Your task to perform on an android device: change the clock display to digital Image 0: 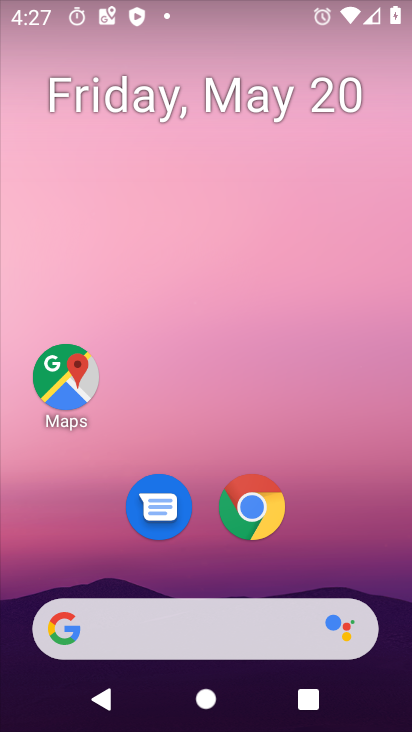
Step 0: drag from (340, 547) to (245, 89)
Your task to perform on an android device: change the clock display to digital Image 1: 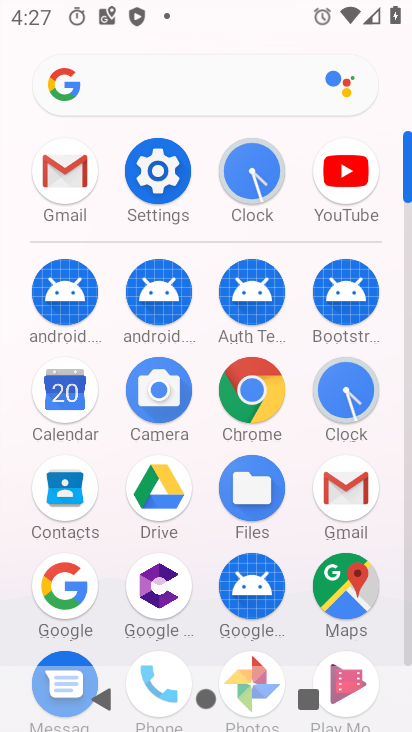
Step 1: click (346, 388)
Your task to perform on an android device: change the clock display to digital Image 2: 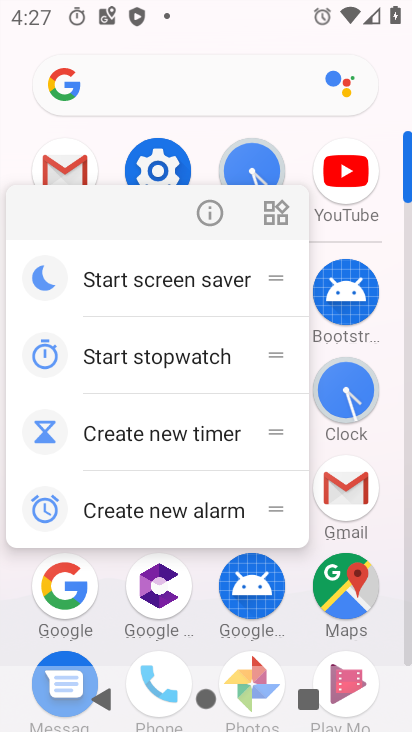
Step 2: click (346, 388)
Your task to perform on an android device: change the clock display to digital Image 3: 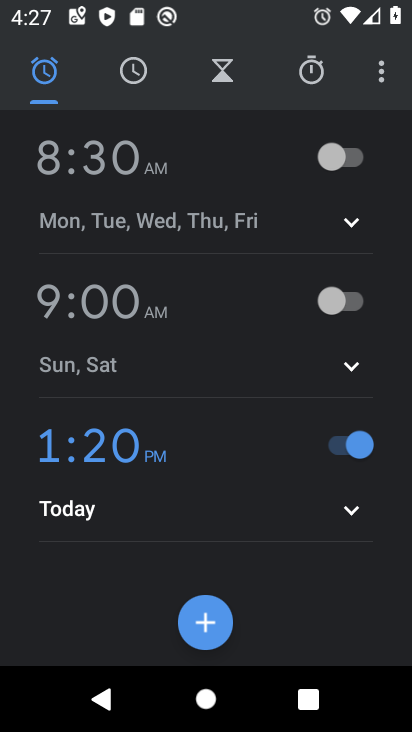
Step 3: click (383, 72)
Your task to perform on an android device: change the clock display to digital Image 4: 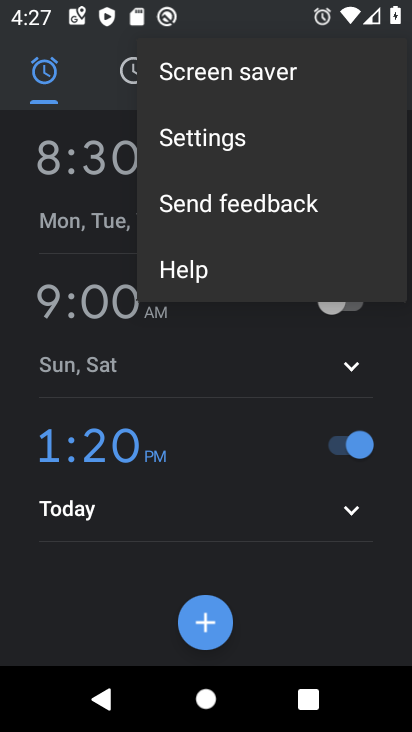
Step 4: click (227, 139)
Your task to perform on an android device: change the clock display to digital Image 5: 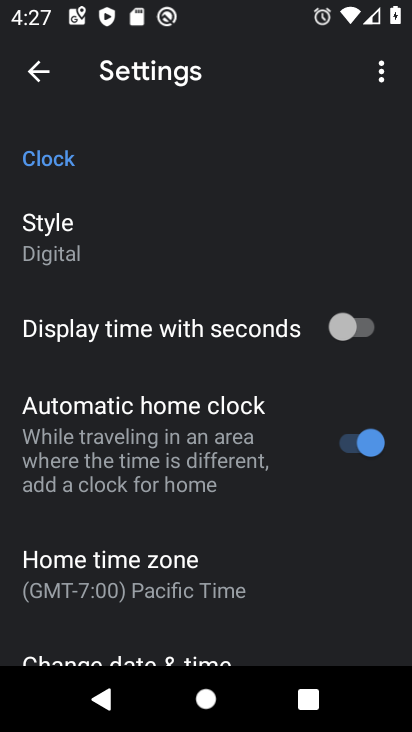
Step 5: click (71, 224)
Your task to perform on an android device: change the clock display to digital Image 6: 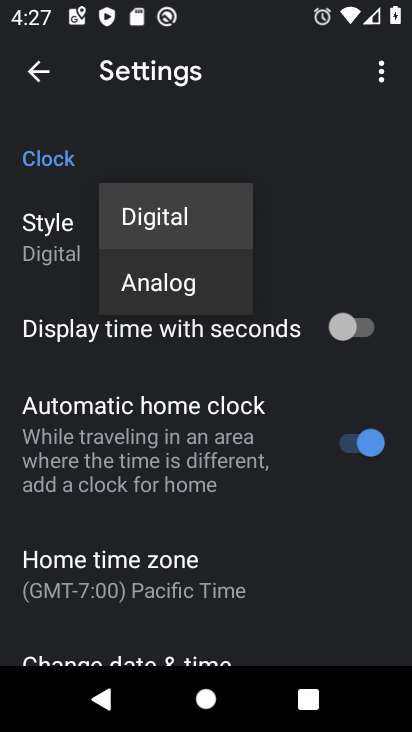
Step 6: click (153, 231)
Your task to perform on an android device: change the clock display to digital Image 7: 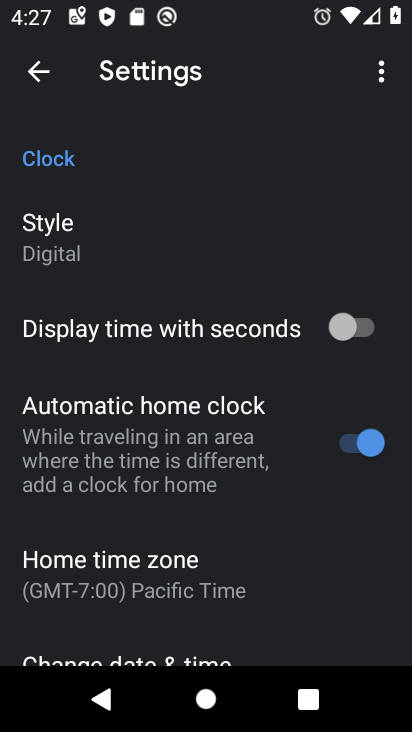
Step 7: task complete